Your task to perform on an android device: show emergency info Image 0: 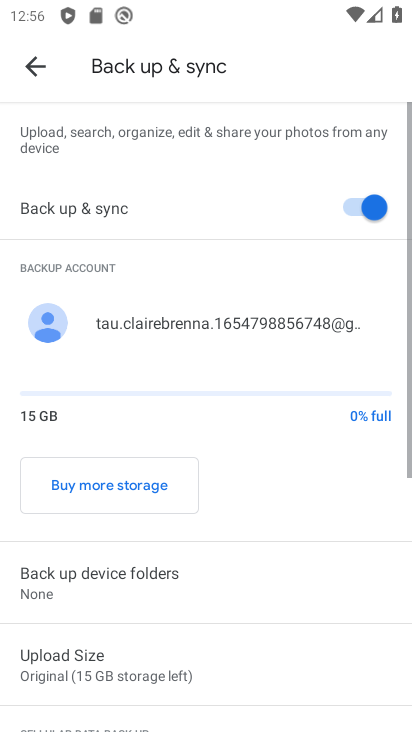
Step 0: press home button
Your task to perform on an android device: show emergency info Image 1: 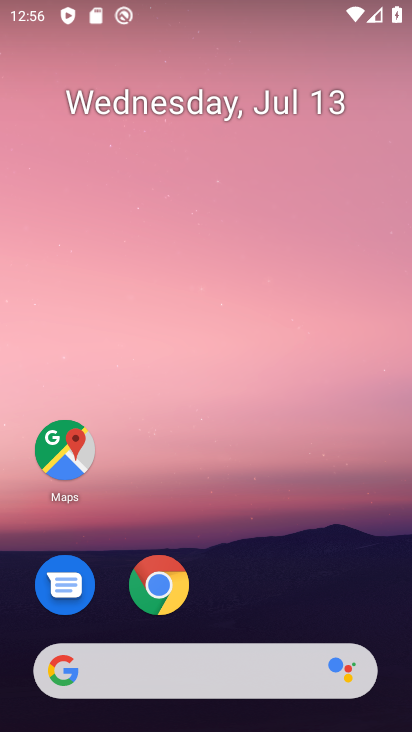
Step 1: drag from (160, 677) to (313, 5)
Your task to perform on an android device: show emergency info Image 2: 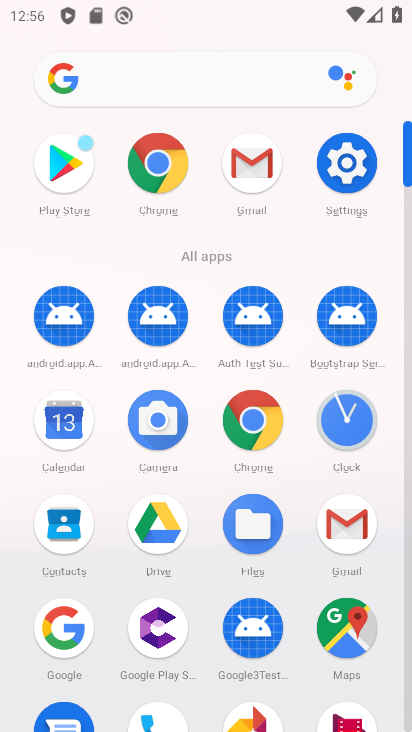
Step 2: click (338, 170)
Your task to perform on an android device: show emergency info Image 3: 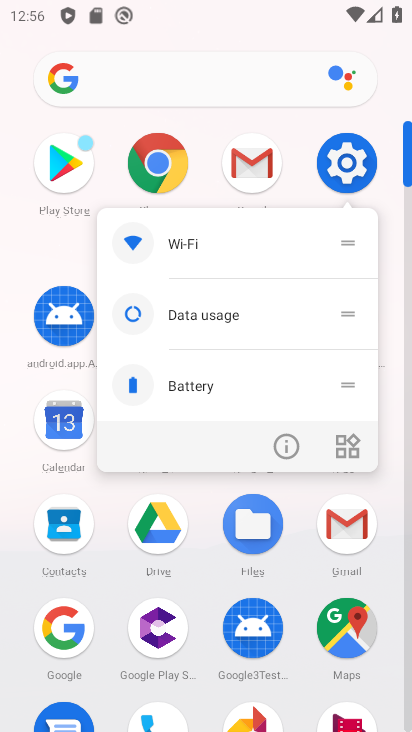
Step 3: click (338, 170)
Your task to perform on an android device: show emergency info Image 4: 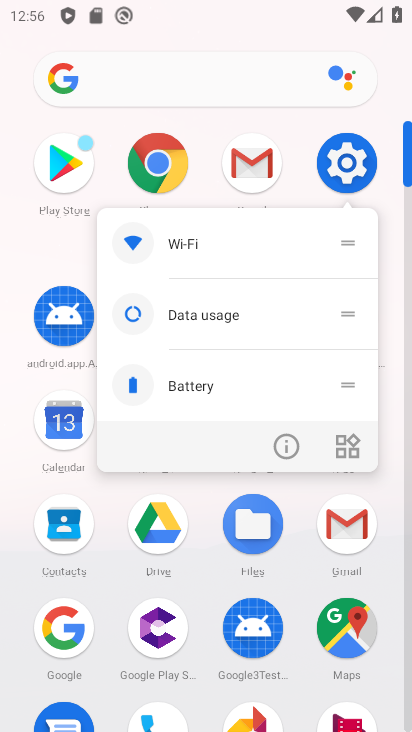
Step 4: click (351, 155)
Your task to perform on an android device: show emergency info Image 5: 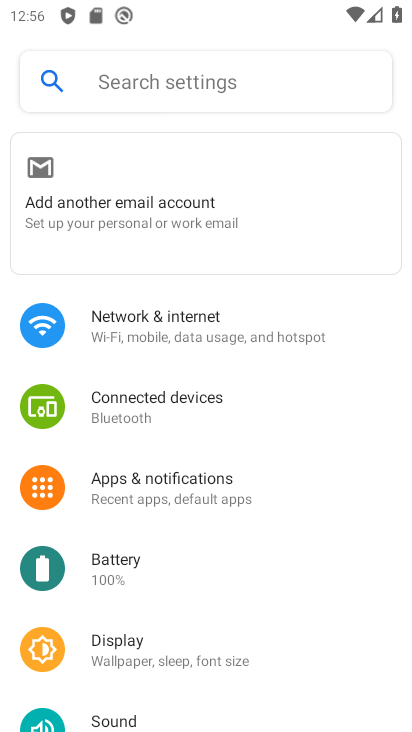
Step 5: drag from (265, 667) to (400, 3)
Your task to perform on an android device: show emergency info Image 6: 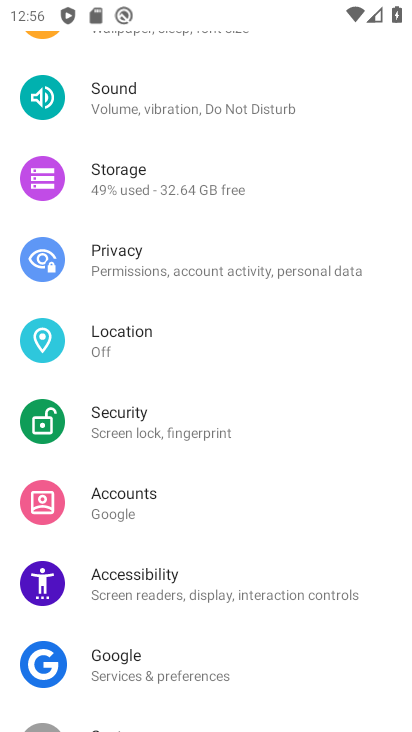
Step 6: drag from (241, 644) to (363, 182)
Your task to perform on an android device: show emergency info Image 7: 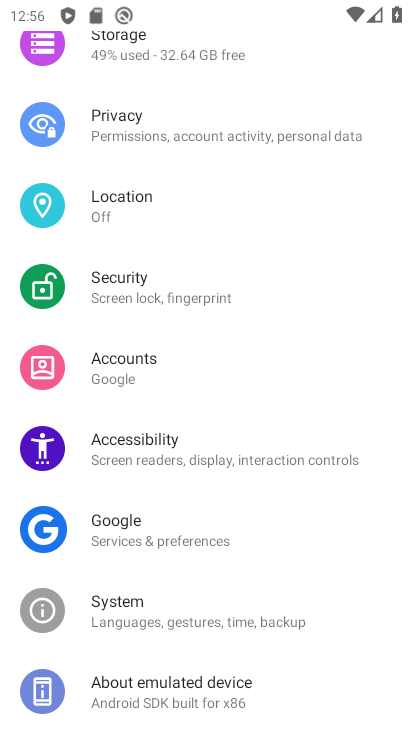
Step 7: click (163, 689)
Your task to perform on an android device: show emergency info Image 8: 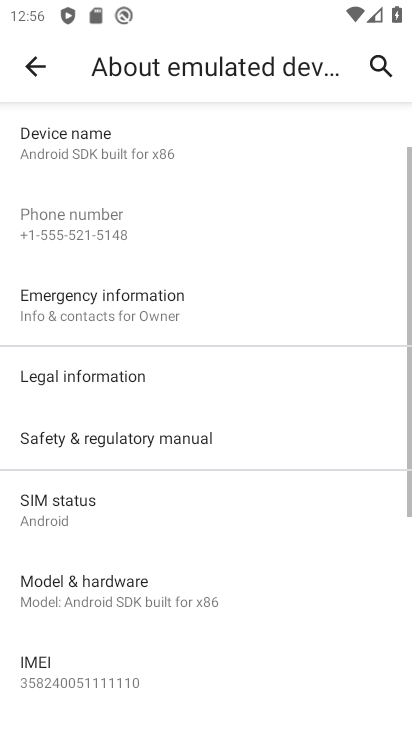
Step 8: click (140, 297)
Your task to perform on an android device: show emergency info Image 9: 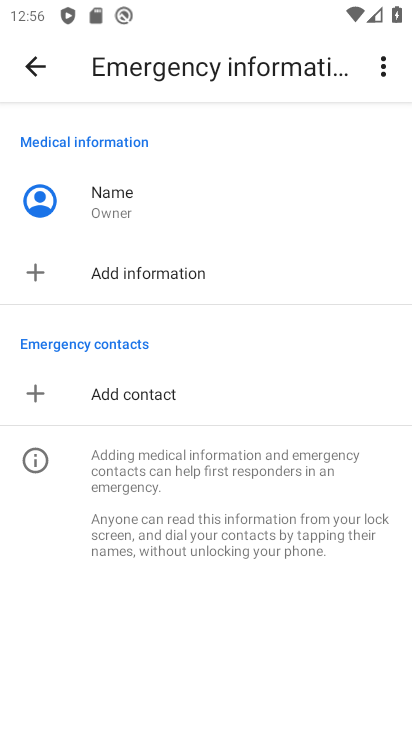
Step 9: task complete